Your task to perform on an android device: turn off notifications settings in the gmail app Image 0: 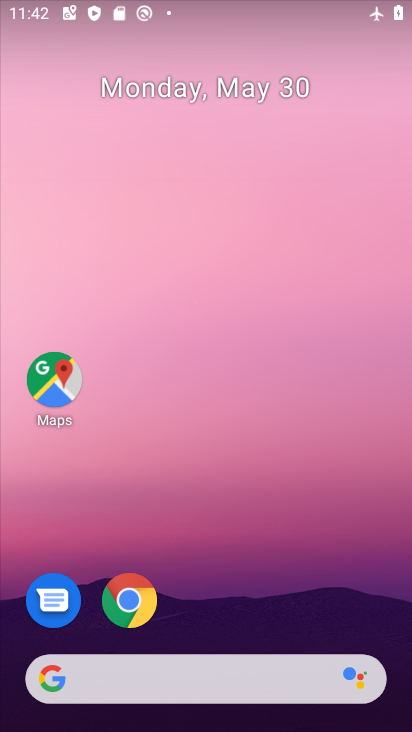
Step 0: drag from (191, 730) to (188, 12)
Your task to perform on an android device: turn off notifications settings in the gmail app Image 1: 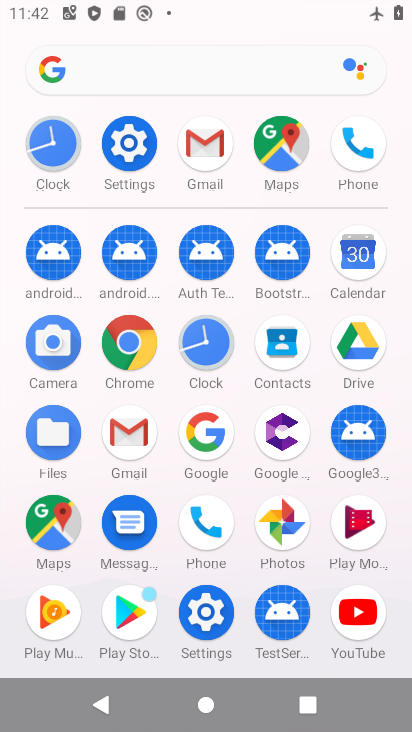
Step 1: click (126, 428)
Your task to perform on an android device: turn off notifications settings in the gmail app Image 2: 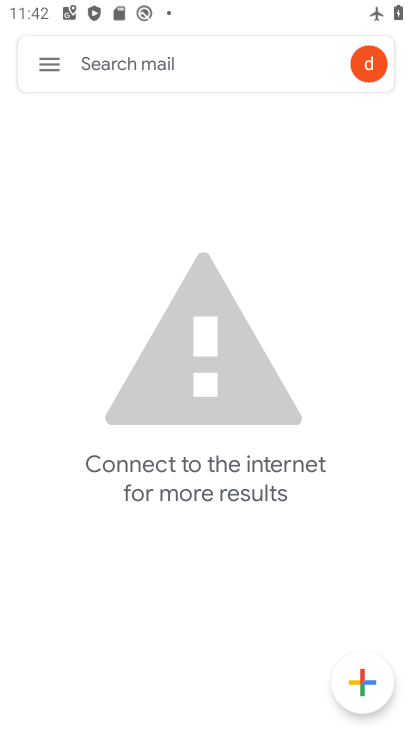
Step 2: click (46, 71)
Your task to perform on an android device: turn off notifications settings in the gmail app Image 3: 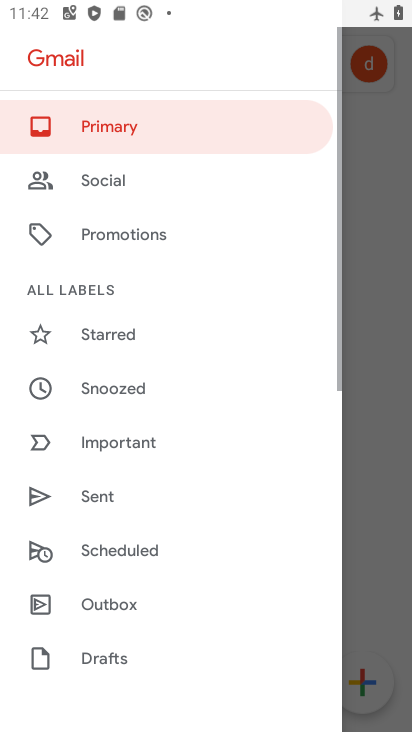
Step 3: drag from (148, 681) to (140, 208)
Your task to perform on an android device: turn off notifications settings in the gmail app Image 4: 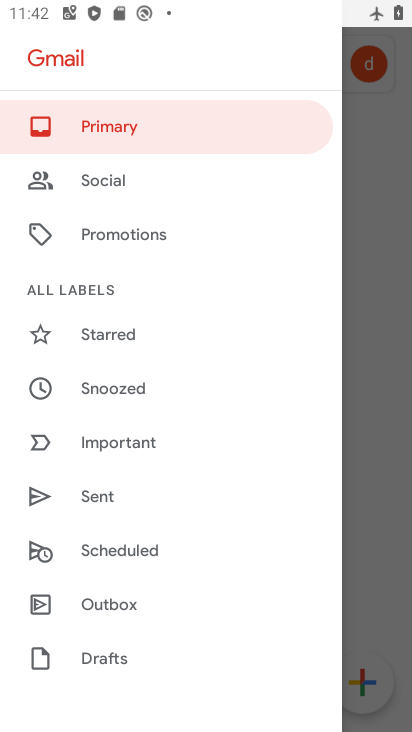
Step 4: drag from (114, 617) to (112, 181)
Your task to perform on an android device: turn off notifications settings in the gmail app Image 5: 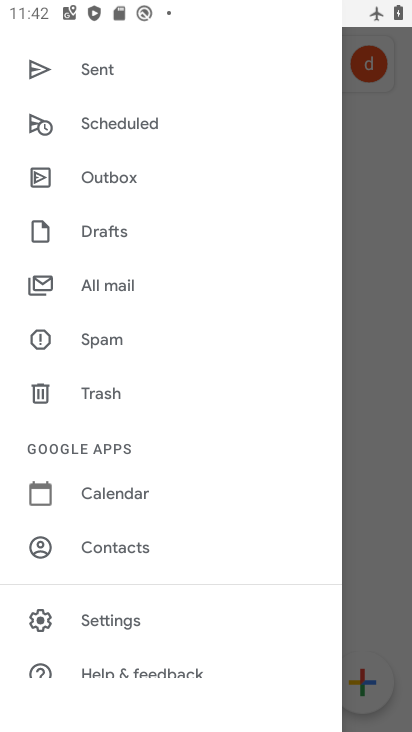
Step 5: click (106, 619)
Your task to perform on an android device: turn off notifications settings in the gmail app Image 6: 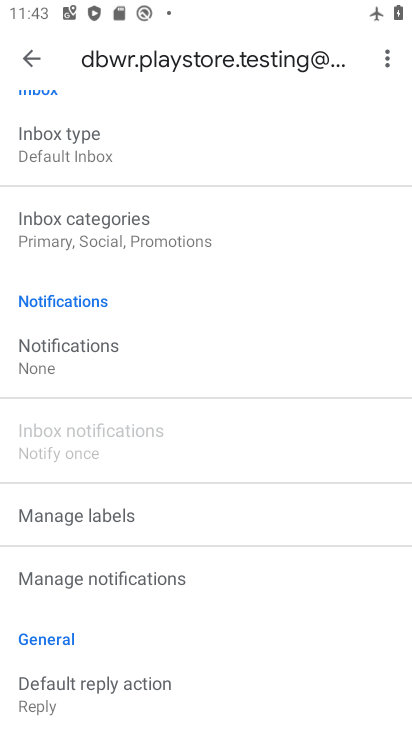
Step 6: click (68, 347)
Your task to perform on an android device: turn off notifications settings in the gmail app Image 7: 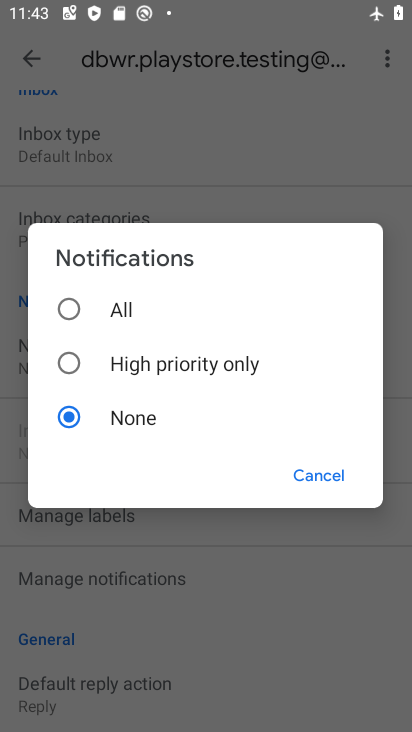
Step 7: click (317, 476)
Your task to perform on an android device: turn off notifications settings in the gmail app Image 8: 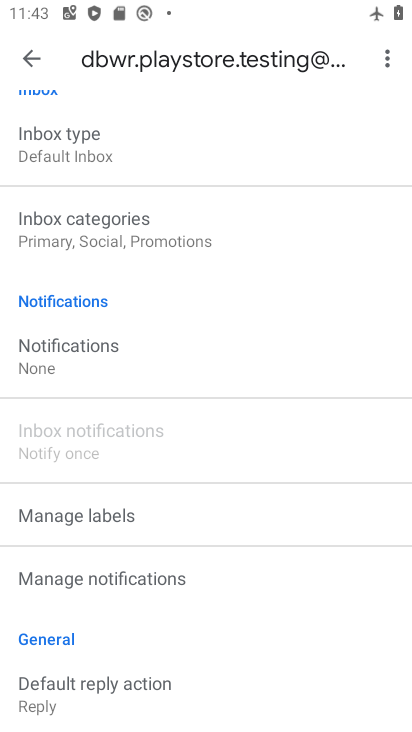
Step 8: task complete